Your task to perform on an android device: turn vacation reply on in the gmail app Image 0: 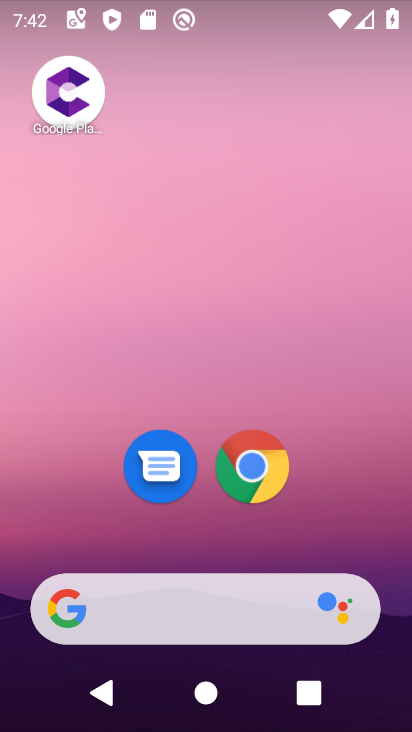
Step 0: drag from (369, 524) to (311, 6)
Your task to perform on an android device: turn vacation reply on in the gmail app Image 1: 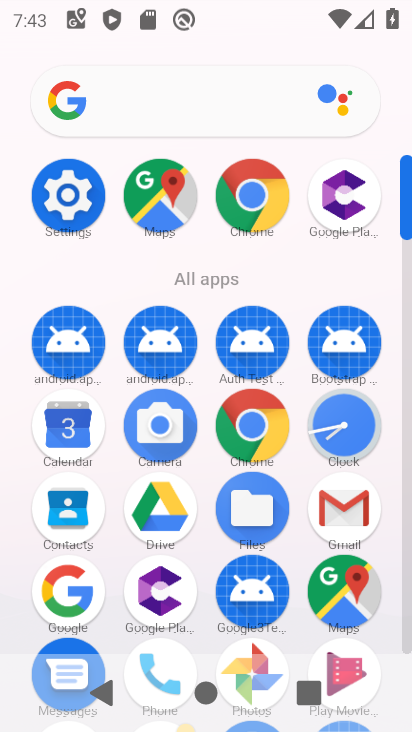
Step 1: click (344, 517)
Your task to perform on an android device: turn vacation reply on in the gmail app Image 2: 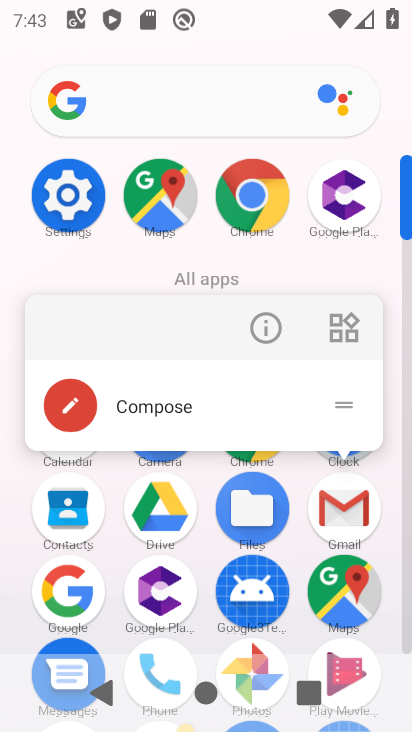
Step 2: click (345, 511)
Your task to perform on an android device: turn vacation reply on in the gmail app Image 3: 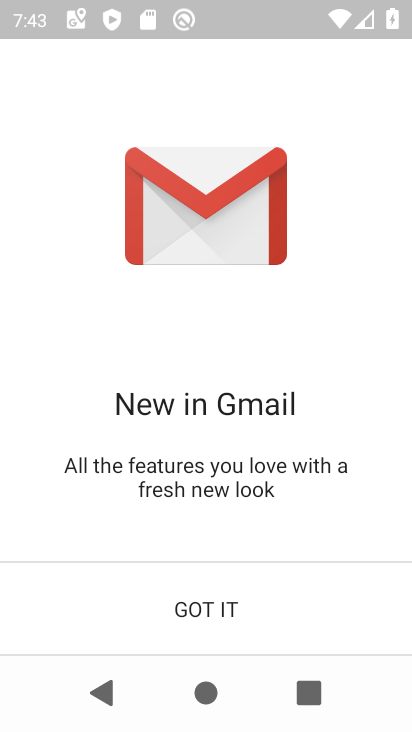
Step 3: click (243, 605)
Your task to perform on an android device: turn vacation reply on in the gmail app Image 4: 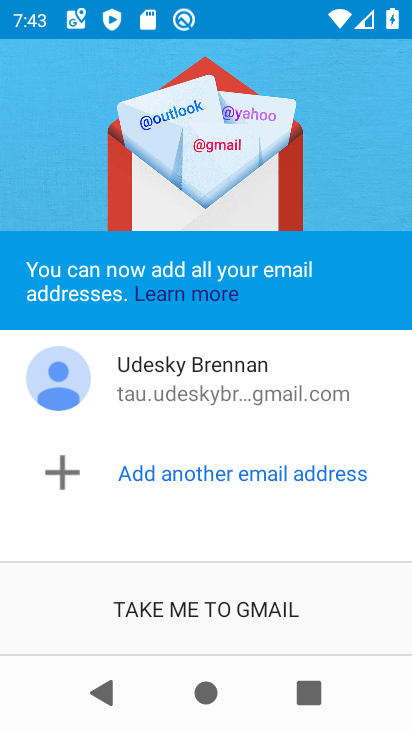
Step 4: click (243, 605)
Your task to perform on an android device: turn vacation reply on in the gmail app Image 5: 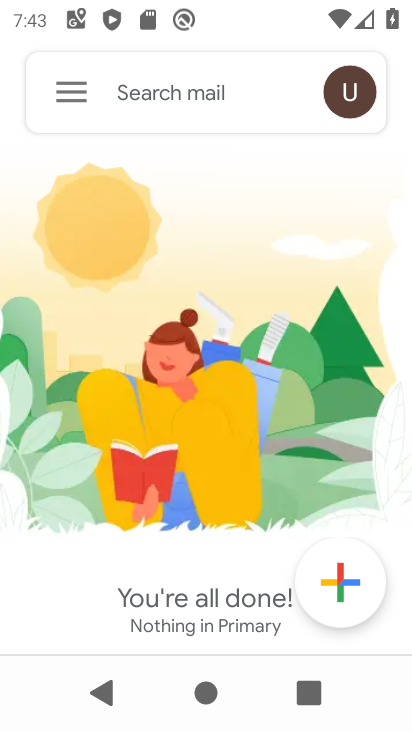
Step 5: click (56, 84)
Your task to perform on an android device: turn vacation reply on in the gmail app Image 6: 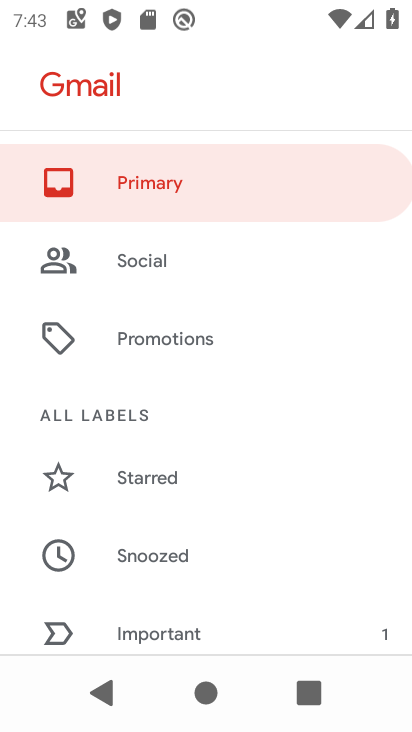
Step 6: drag from (176, 558) to (295, 181)
Your task to perform on an android device: turn vacation reply on in the gmail app Image 7: 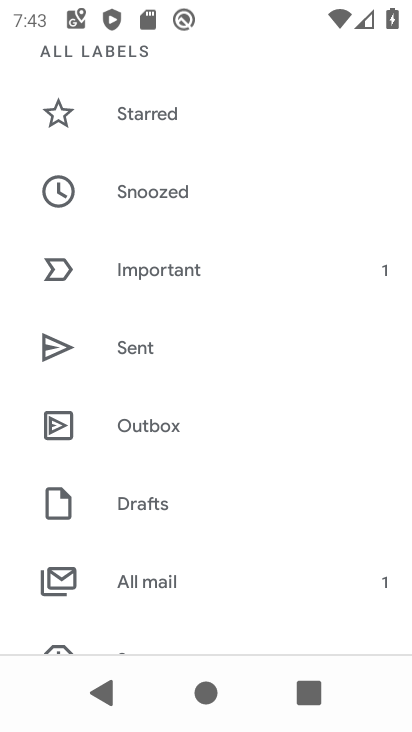
Step 7: drag from (302, 573) to (305, 350)
Your task to perform on an android device: turn vacation reply on in the gmail app Image 8: 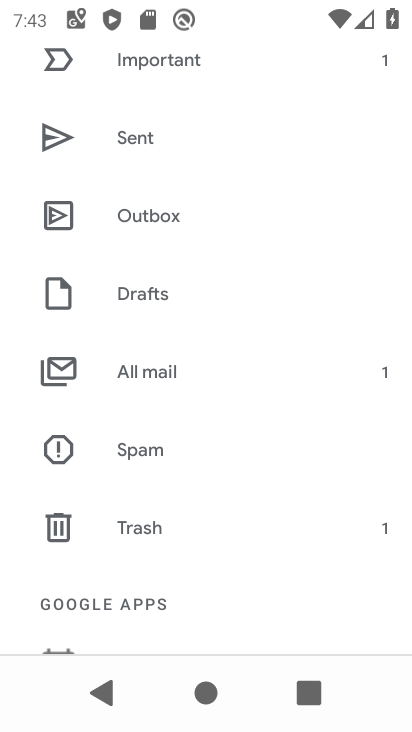
Step 8: drag from (293, 564) to (351, 262)
Your task to perform on an android device: turn vacation reply on in the gmail app Image 9: 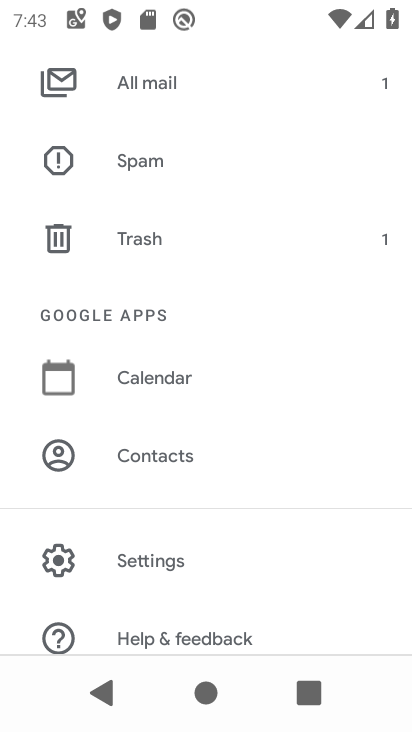
Step 9: drag from (275, 477) to (308, 314)
Your task to perform on an android device: turn vacation reply on in the gmail app Image 10: 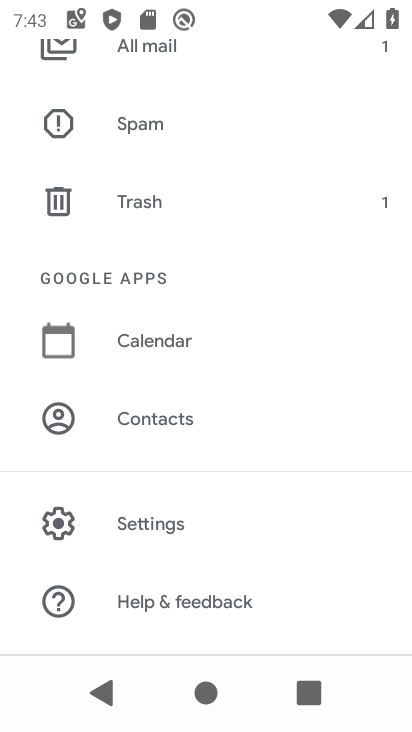
Step 10: click (134, 515)
Your task to perform on an android device: turn vacation reply on in the gmail app Image 11: 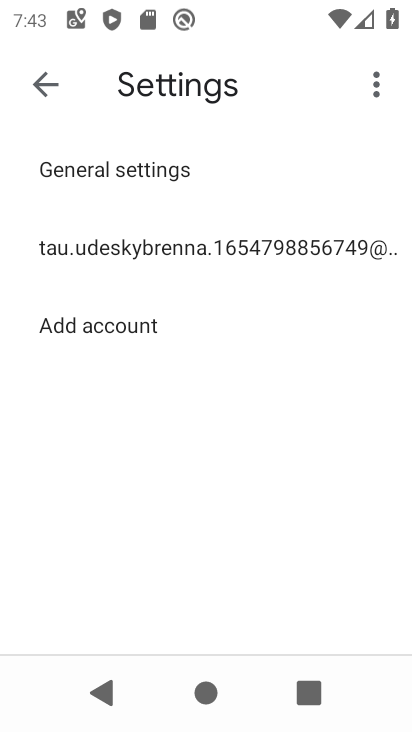
Step 11: click (284, 270)
Your task to perform on an android device: turn vacation reply on in the gmail app Image 12: 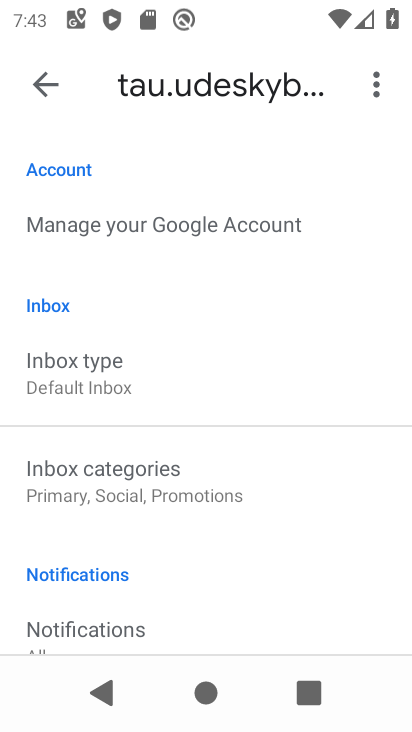
Step 12: drag from (342, 515) to (386, 196)
Your task to perform on an android device: turn vacation reply on in the gmail app Image 13: 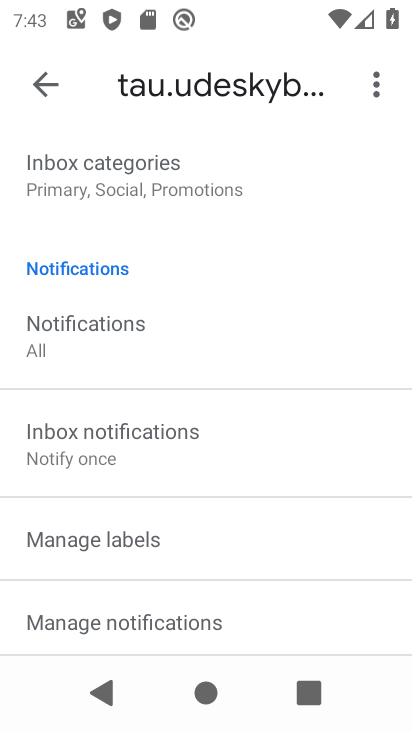
Step 13: drag from (292, 386) to (362, 159)
Your task to perform on an android device: turn vacation reply on in the gmail app Image 14: 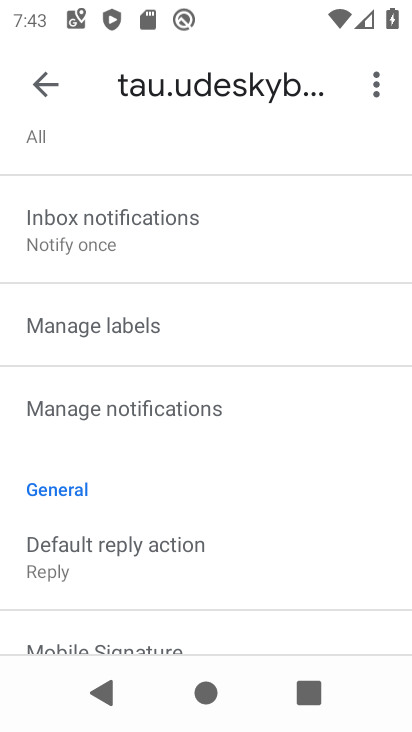
Step 14: drag from (323, 469) to (401, 166)
Your task to perform on an android device: turn vacation reply on in the gmail app Image 15: 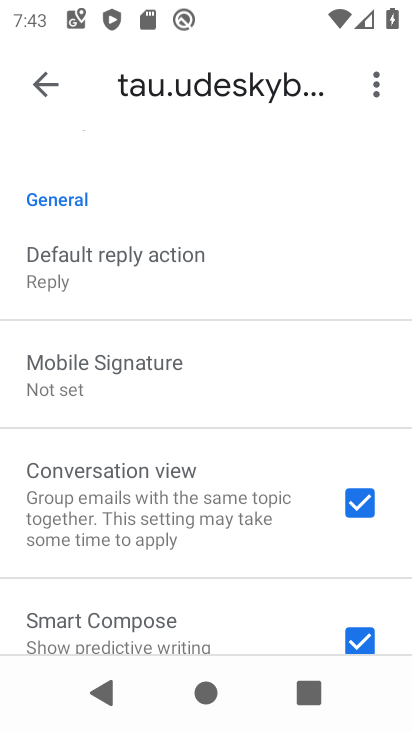
Step 15: drag from (307, 413) to (393, 203)
Your task to perform on an android device: turn vacation reply on in the gmail app Image 16: 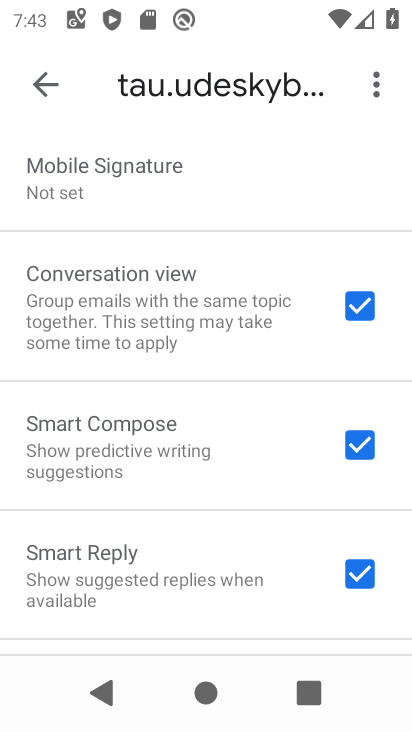
Step 16: drag from (263, 589) to (273, 292)
Your task to perform on an android device: turn vacation reply on in the gmail app Image 17: 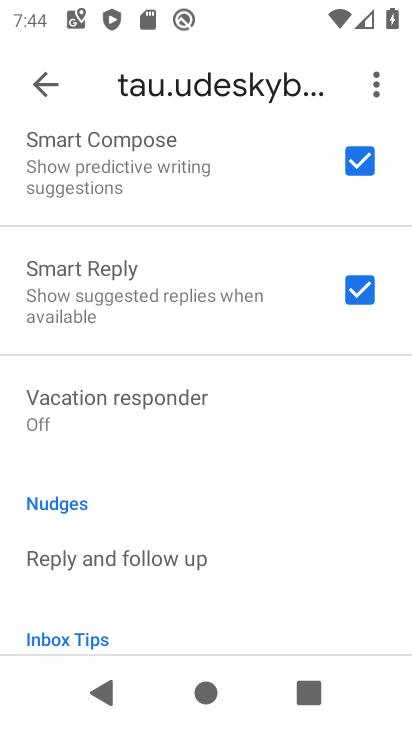
Step 17: click (162, 398)
Your task to perform on an android device: turn vacation reply on in the gmail app Image 18: 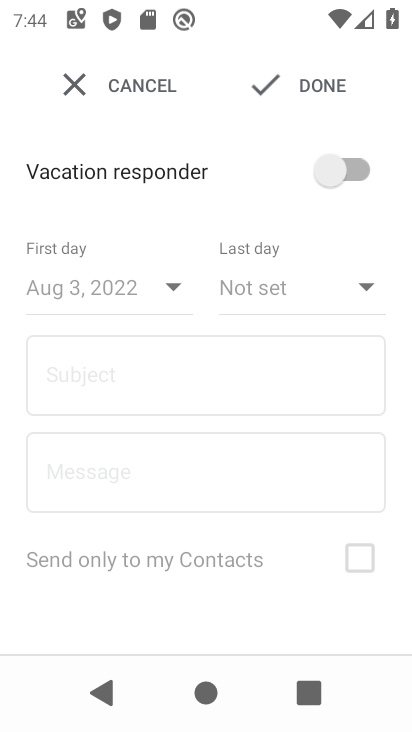
Step 18: click (351, 183)
Your task to perform on an android device: turn vacation reply on in the gmail app Image 19: 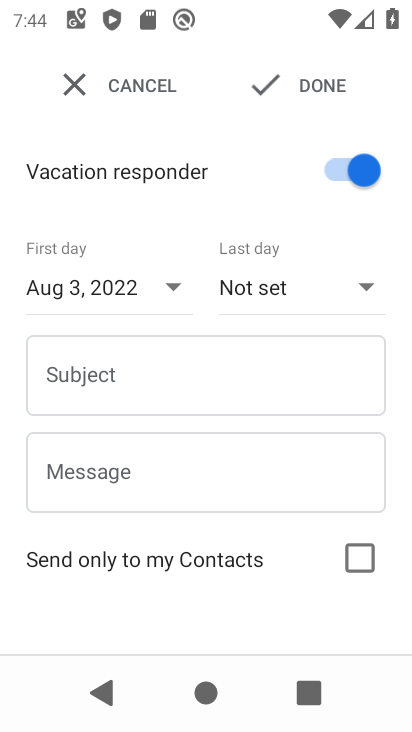
Step 19: task complete